Your task to perform on an android device: Open maps Image 0: 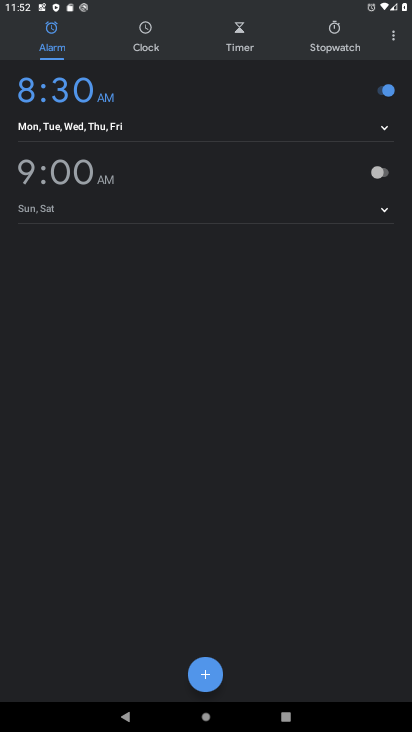
Step 0: press home button
Your task to perform on an android device: Open maps Image 1: 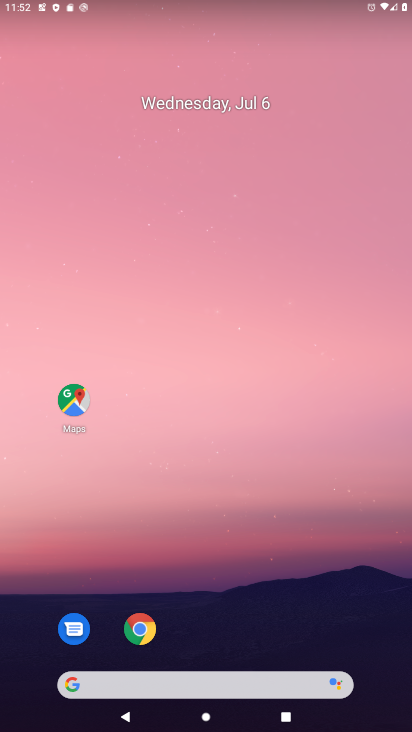
Step 1: click (84, 397)
Your task to perform on an android device: Open maps Image 2: 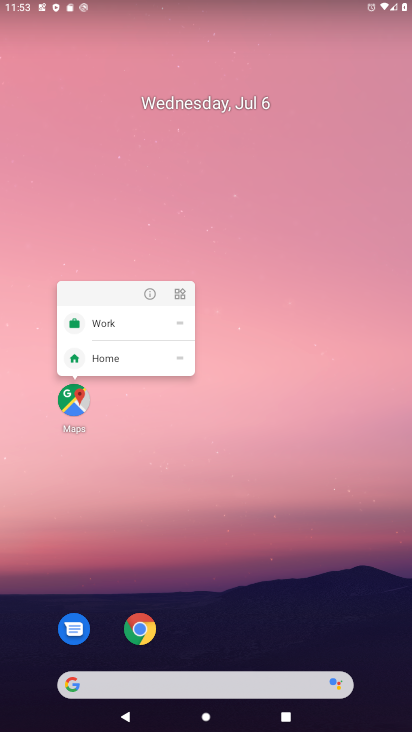
Step 2: click (81, 414)
Your task to perform on an android device: Open maps Image 3: 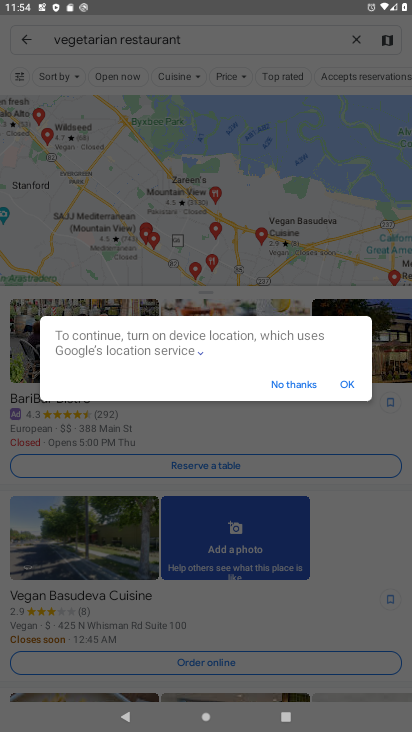
Step 3: task complete